Your task to perform on an android device: Open privacy settings Image 0: 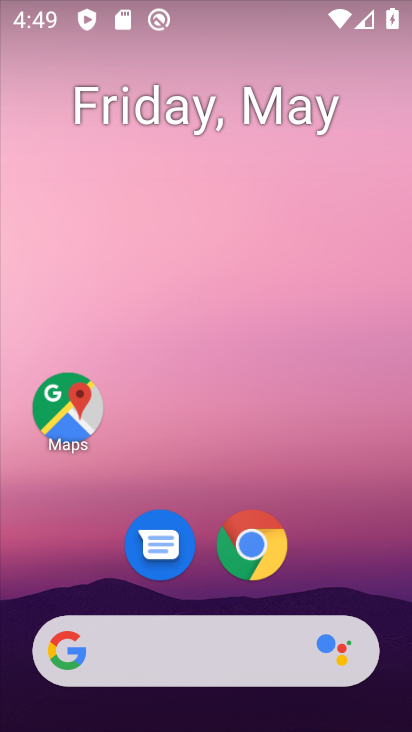
Step 0: drag from (394, 690) to (305, 219)
Your task to perform on an android device: Open privacy settings Image 1: 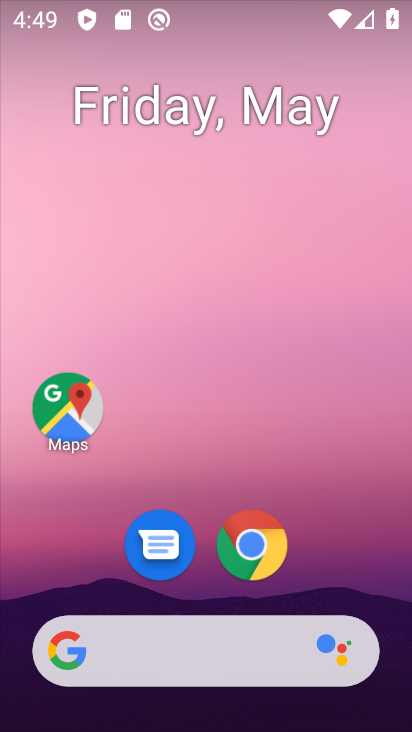
Step 1: click (247, 549)
Your task to perform on an android device: Open privacy settings Image 2: 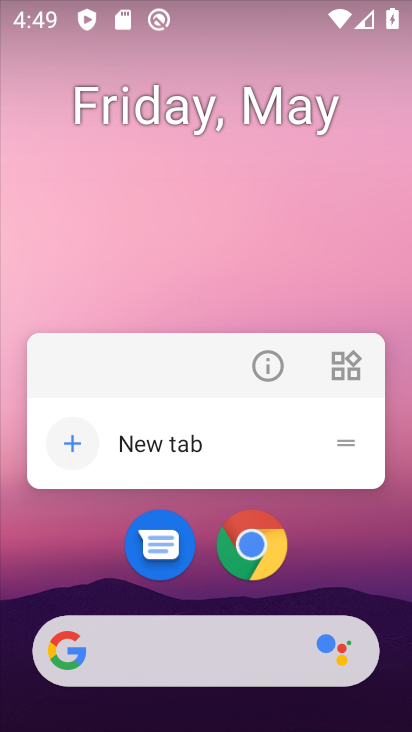
Step 2: click (246, 540)
Your task to perform on an android device: Open privacy settings Image 3: 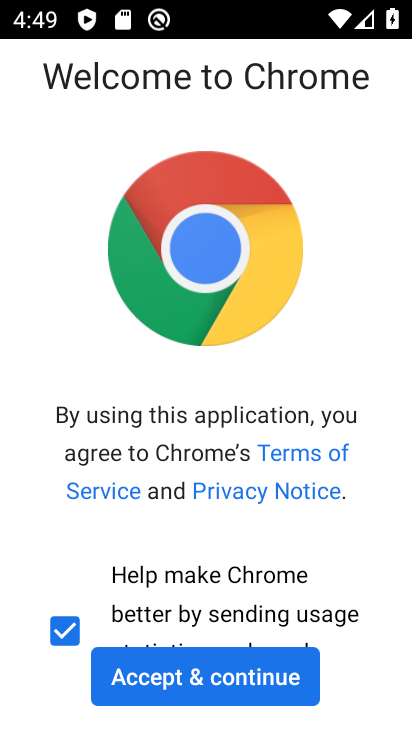
Step 3: click (197, 665)
Your task to perform on an android device: Open privacy settings Image 4: 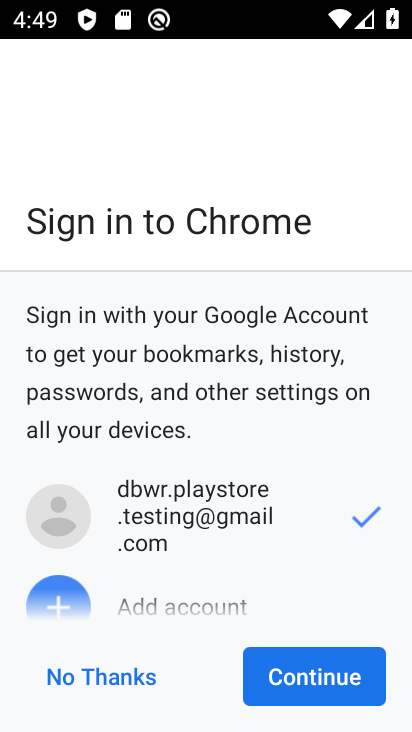
Step 4: click (293, 676)
Your task to perform on an android device: Open privacy settings Image 5: 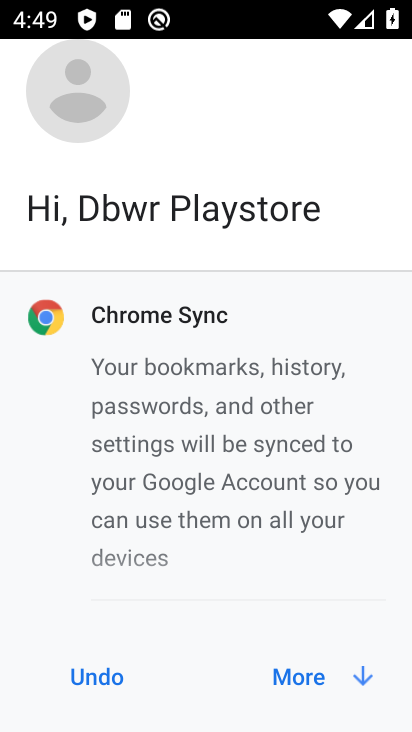
Step 5: click (299, 692)
Your task to perform on an android device: Open privacy settings Image 6: 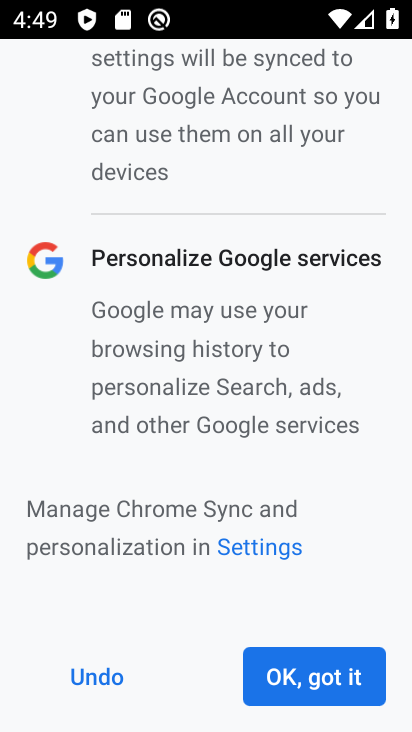
Step 6: click (270, 665)
Your task to perform on an android device: Open privacy settings Image 7: 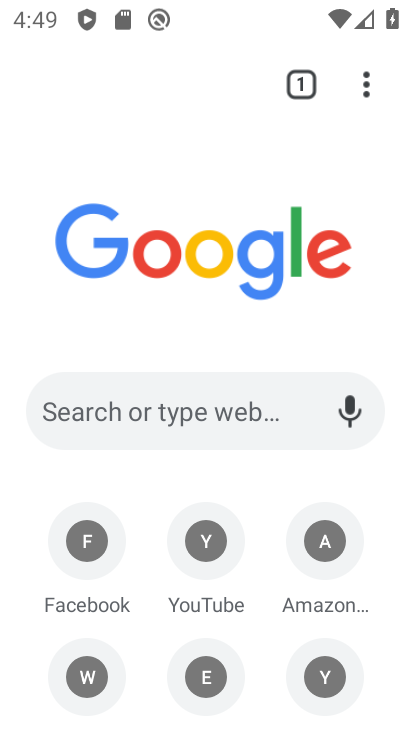
Step 7: click (366, 83)
Your task to perform on an android device: Open privacy settings Image 8: 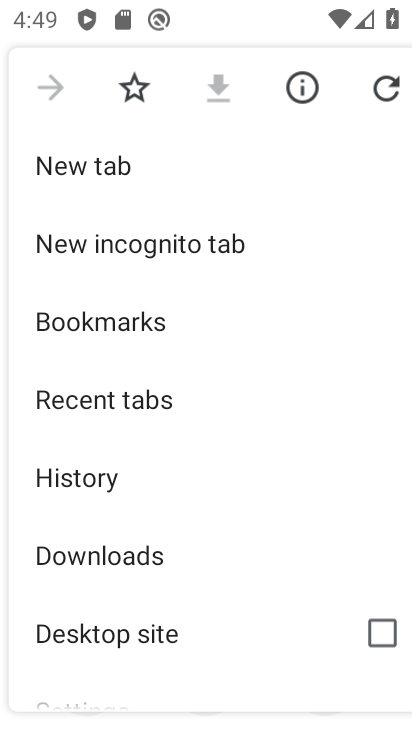
Step 8: drag from (252, 641) to (252, 255)
Your task to perform on an android device: Open privacy settings Image 9: 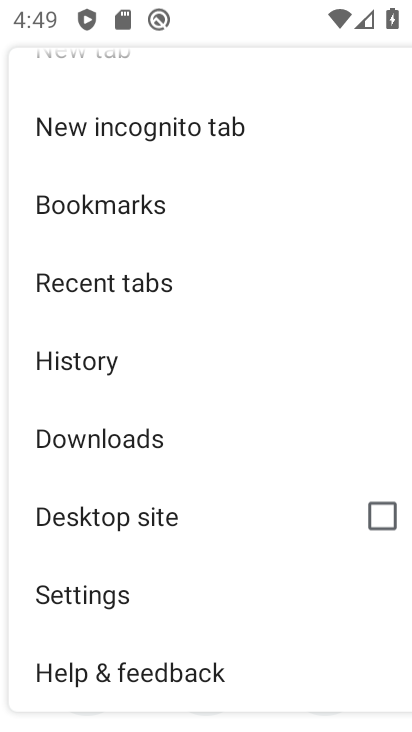
Step 9: click (88, 592)
Your task to perform on an android device: Open privacy settings Image 10: 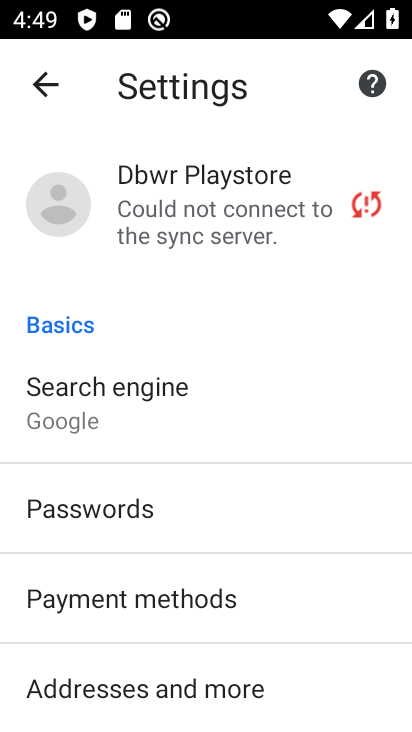
Step 10: drag from (317, 715) to (286, 247)
Your task to perform on an android device: Open privacy settings Image 11: 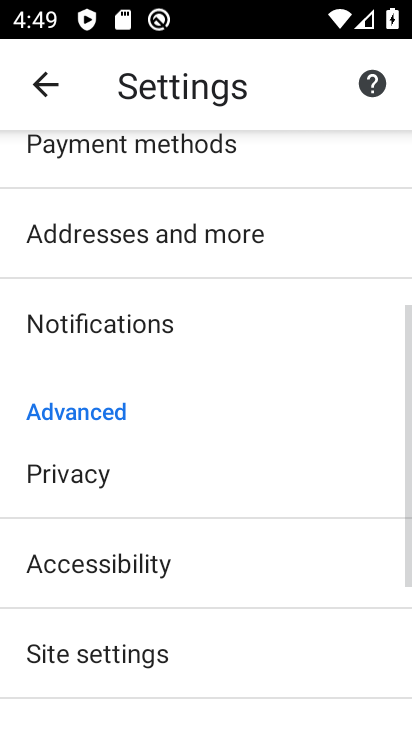
Step 11: drag from (263, 665) to (251, 360)
Your task to perform on an android device: Open privacy settings Image 12: 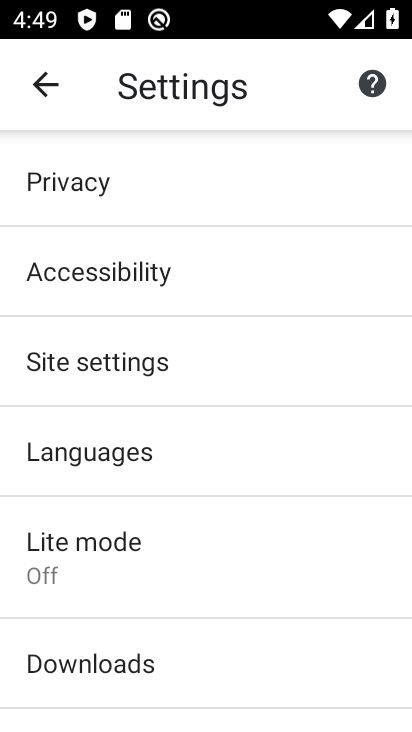
Step 12: click (67, 180)
Your task to perform on an android device: Open privacy settings Image 13: 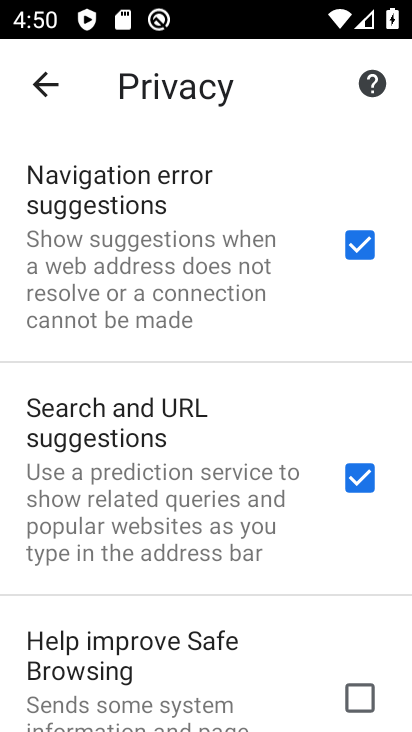
Step 13: task complete